Your task to perform on an android device: install app "Paramount+ | Peak Streaming" Image 0: 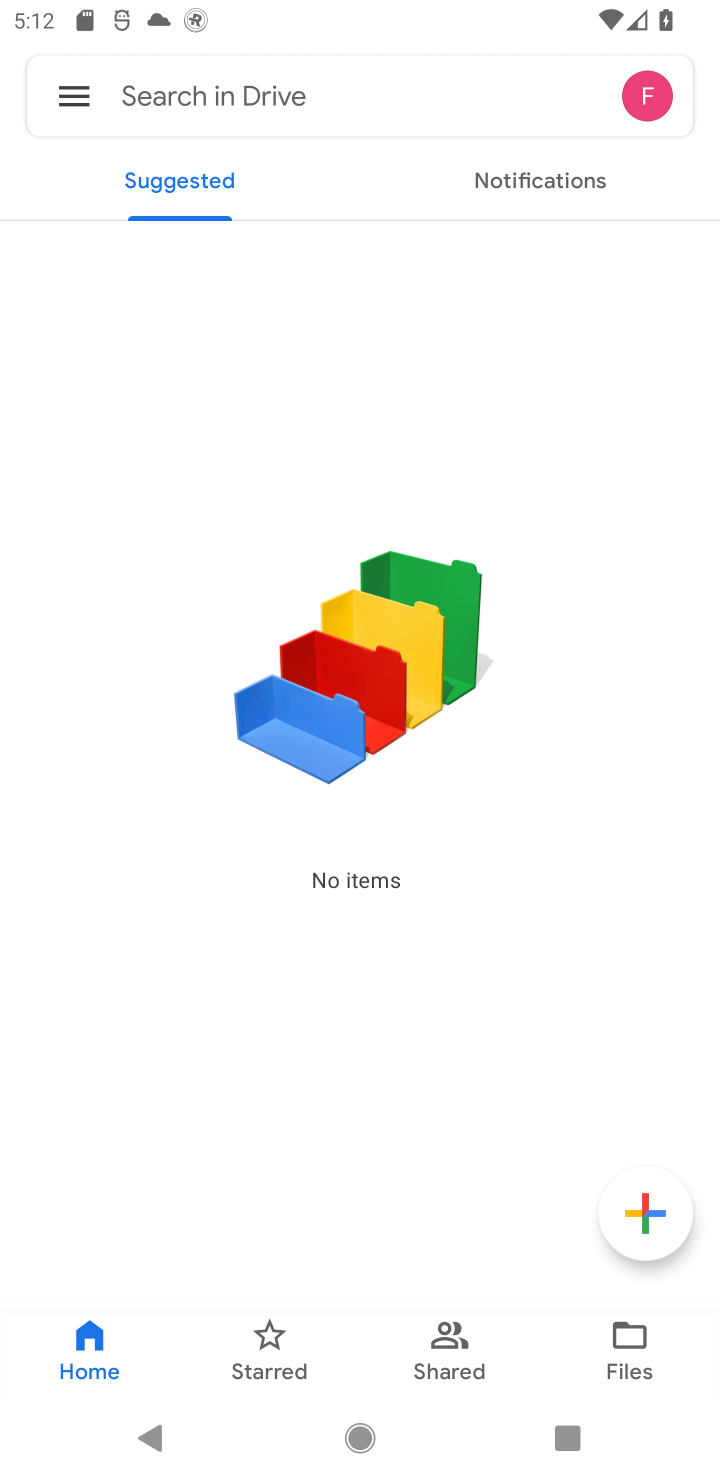
Step 0: press home button
Your task to perform on an android device: install app "Paramount+ | Peak Streaming" Image 1: 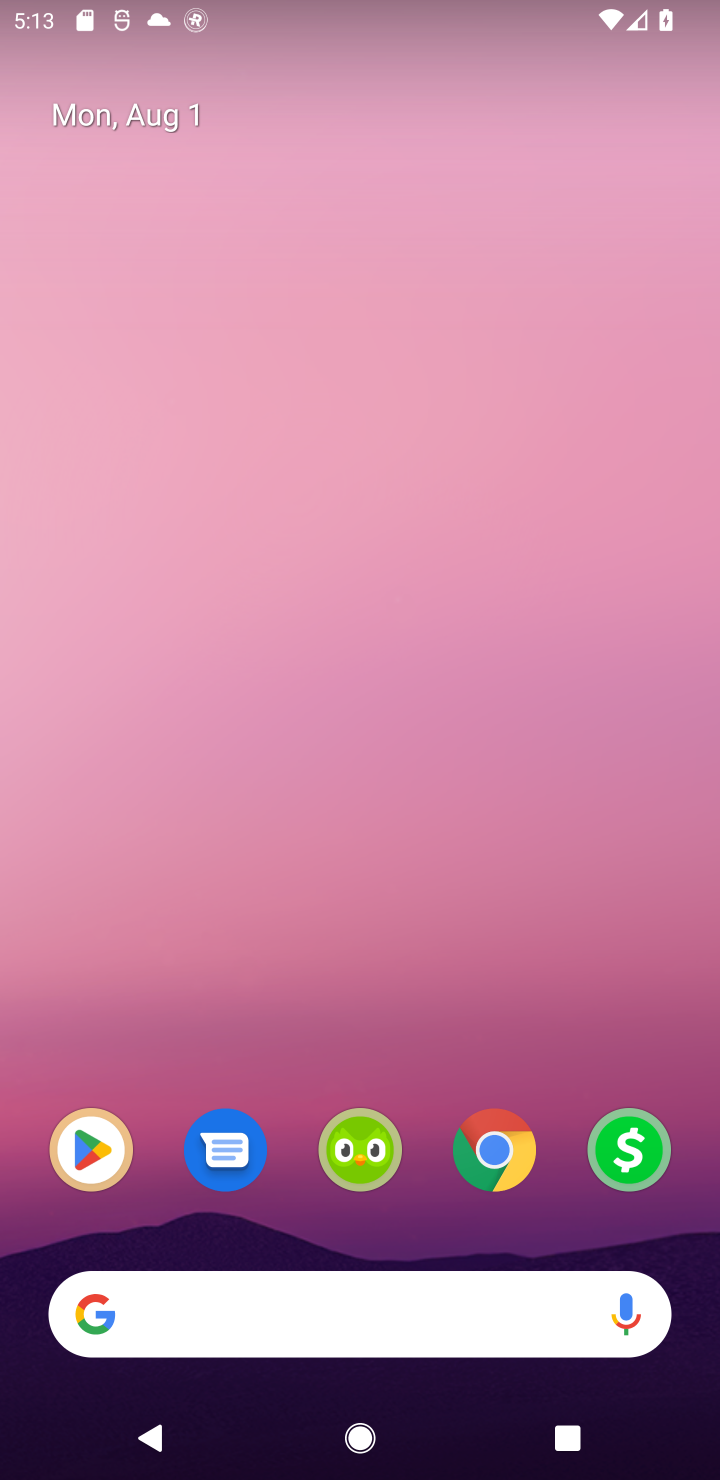
Step 1: task complete